Your task to perform on an android device: What's on my calendar today? Image 0: 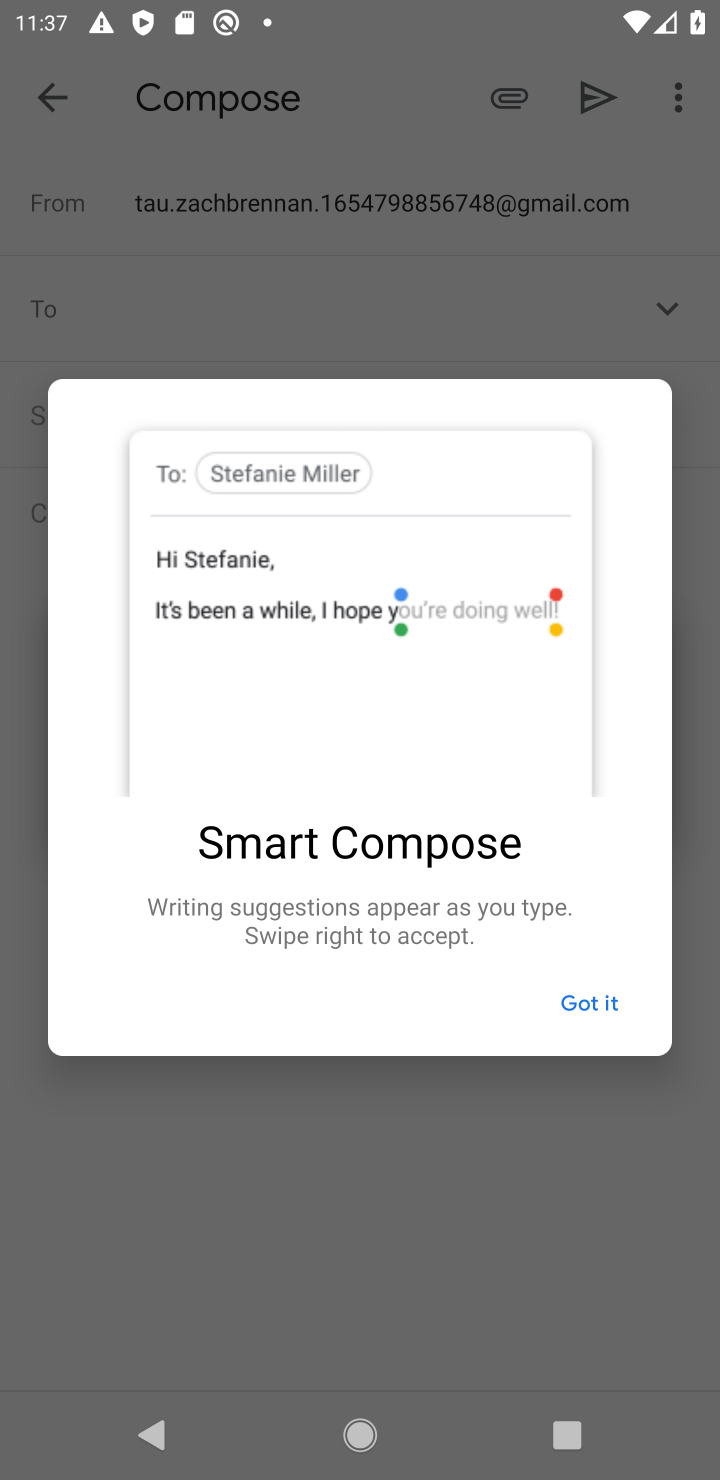
Step 0: press home button
Your task to perform on an android device: What's on my calendar today? Image 1: 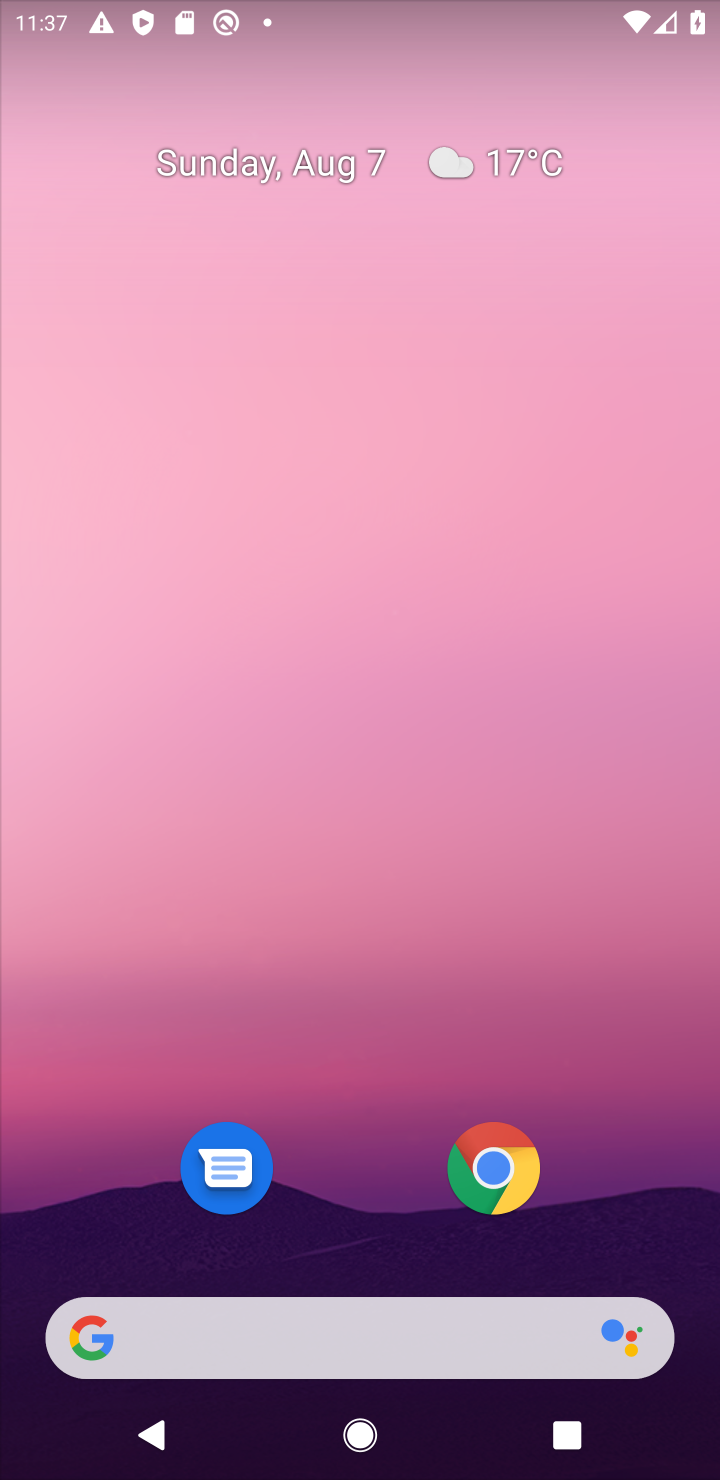
Step 1: drag from (65, 1360) to (99, 1203)
Your task to perform on an android device: What's on my calendar today? Image 2: 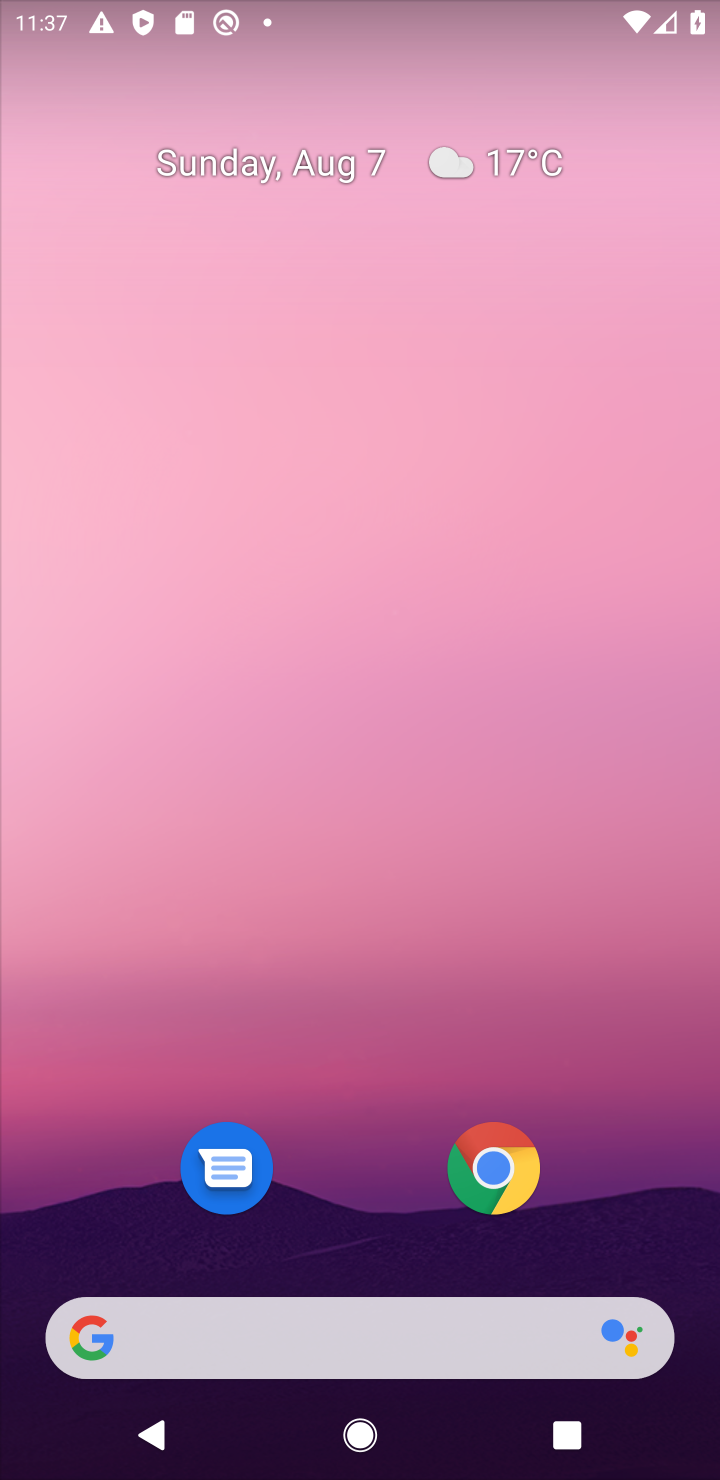
Step 2: click (84, 1395)
Your task to perform on an android device: What's on my calendar today? Image 3: 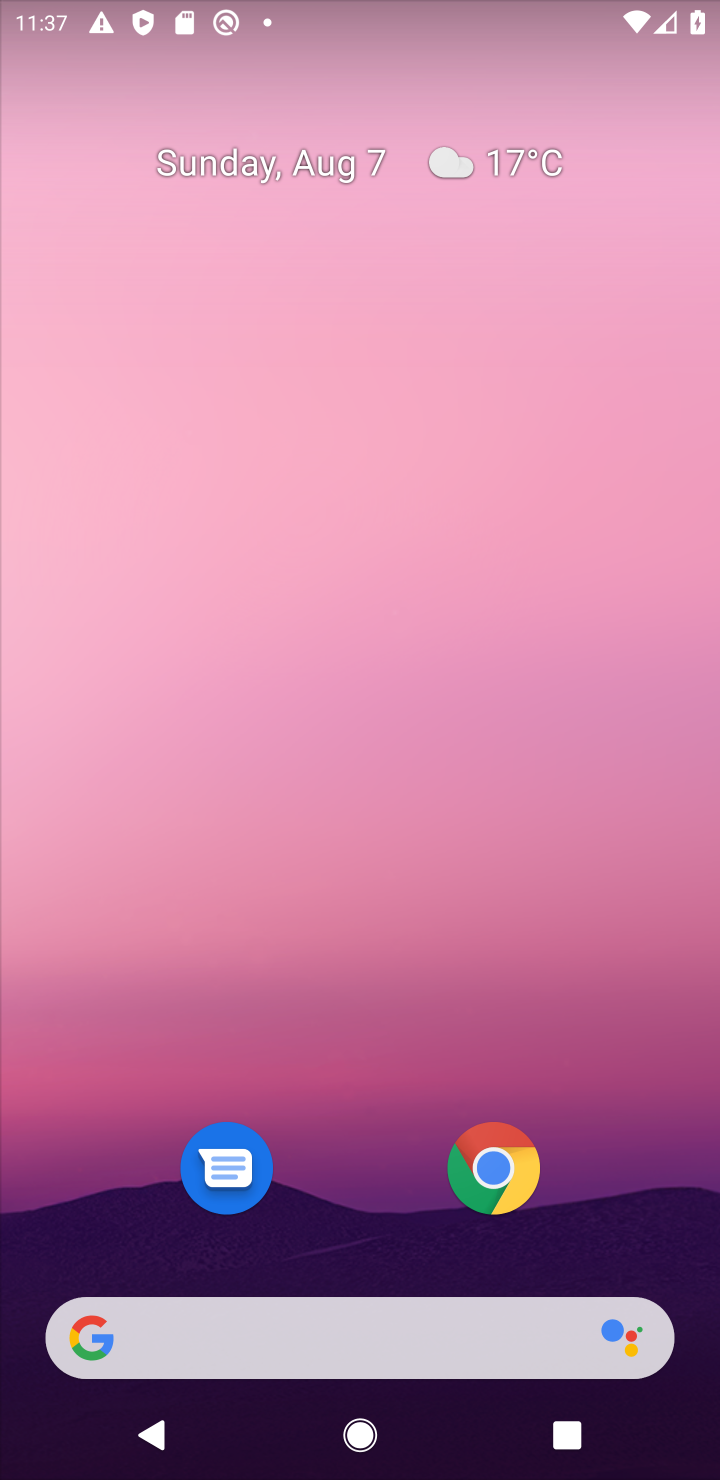
Step 3: drag from (188, 678) to (270, 478)
Your task to perform on an android device: What's on my calendar today? Image 4: 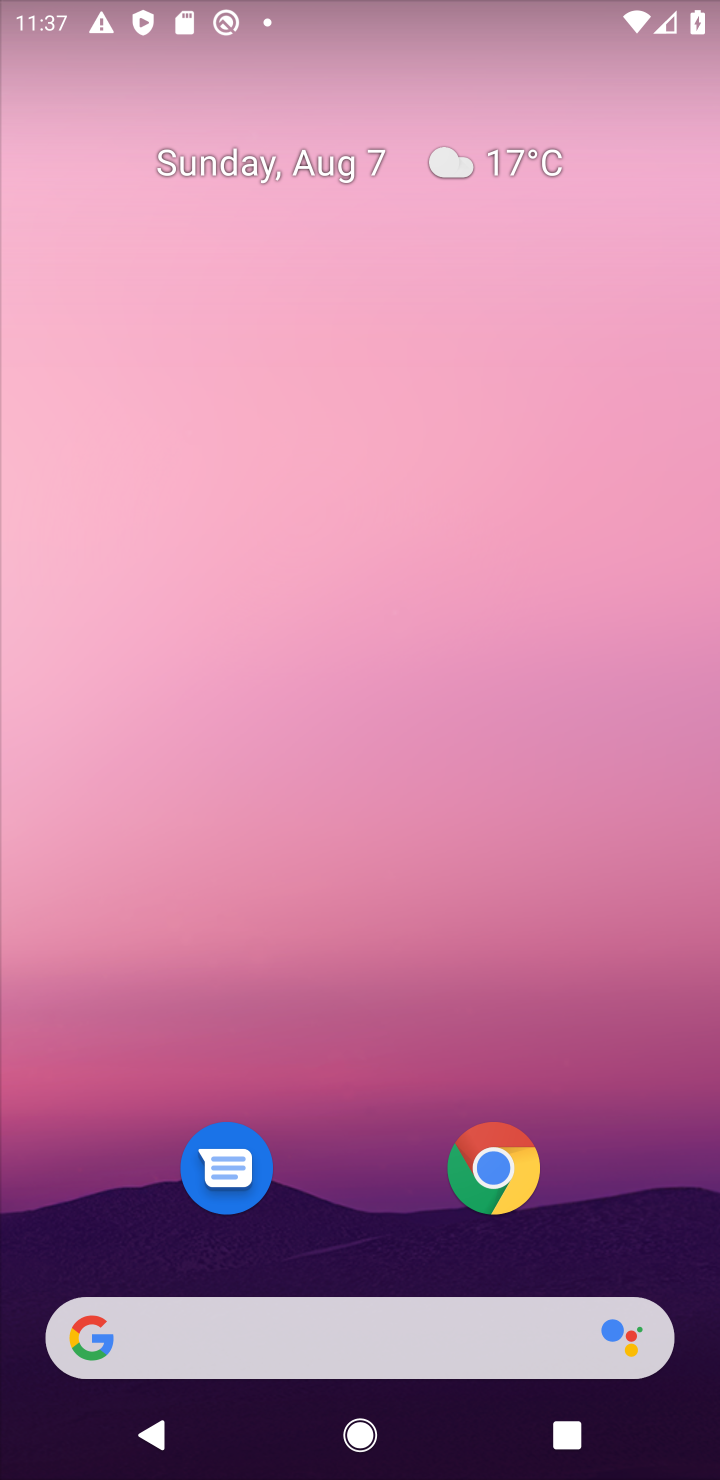
Step 4: drag from (66, 1396) to (685, 146)
Your task to perform on an android device: What's on my calendar today? Image 5: 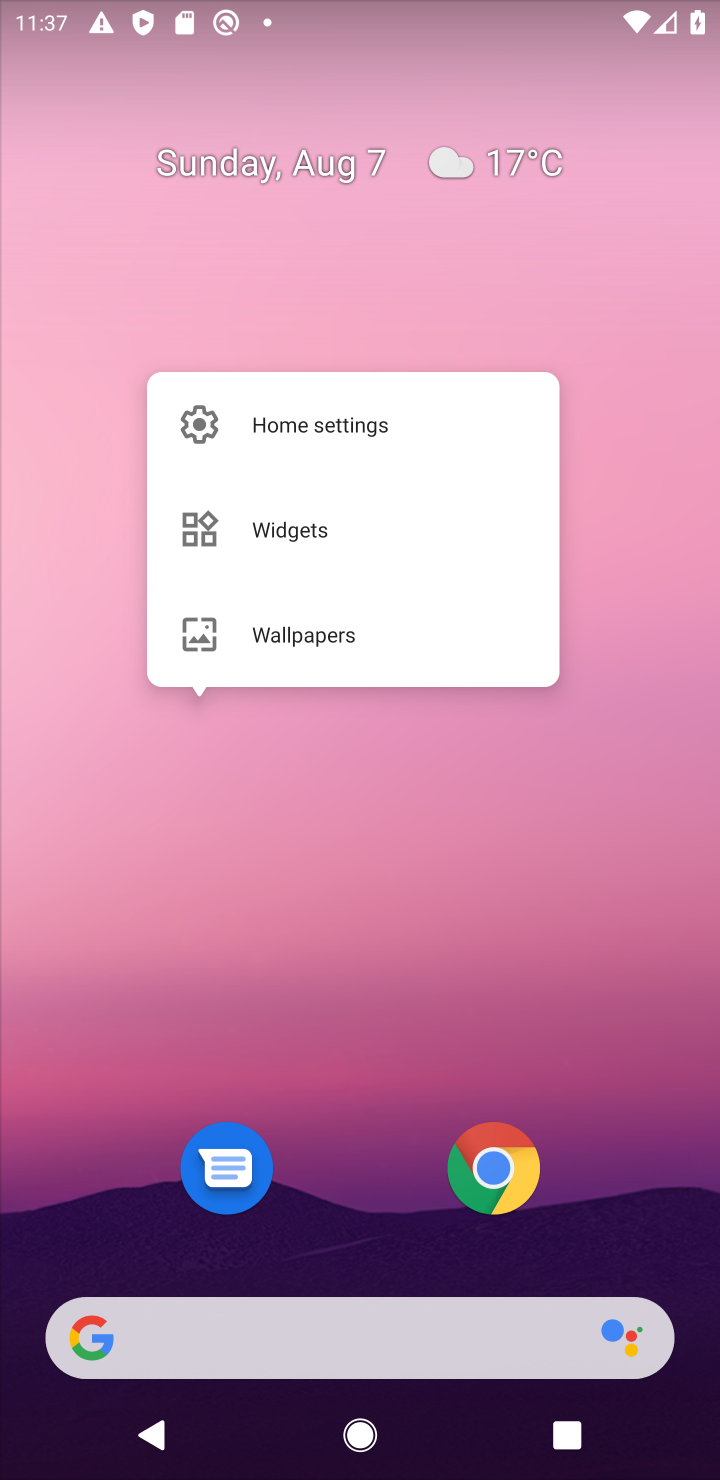
Step 5: click (84, 1417)
Your task to perform on an android device: What's on my calendar today? Image 6: 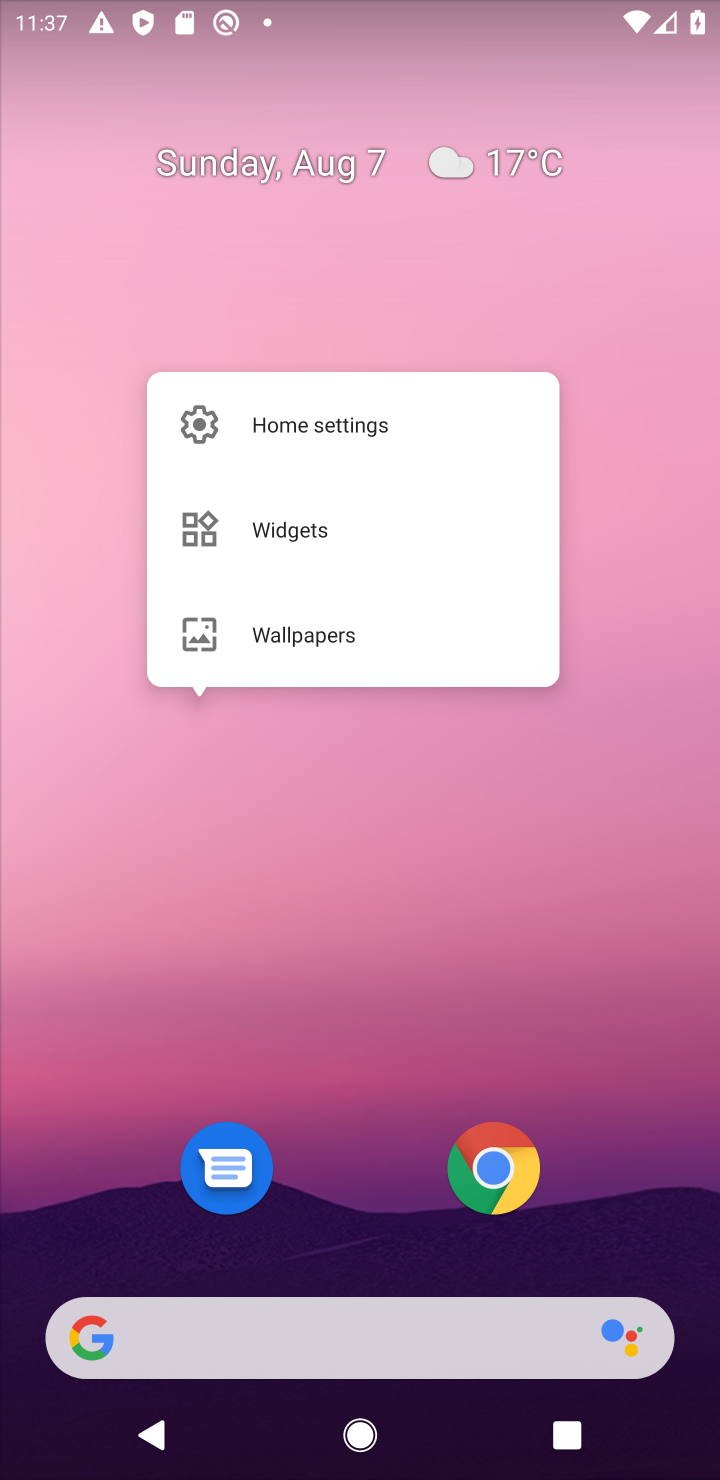
Step 6: drag from (81, 1412) to (520, 453)
Your task to perform on an android device: What's on my calendar today? Image 7: 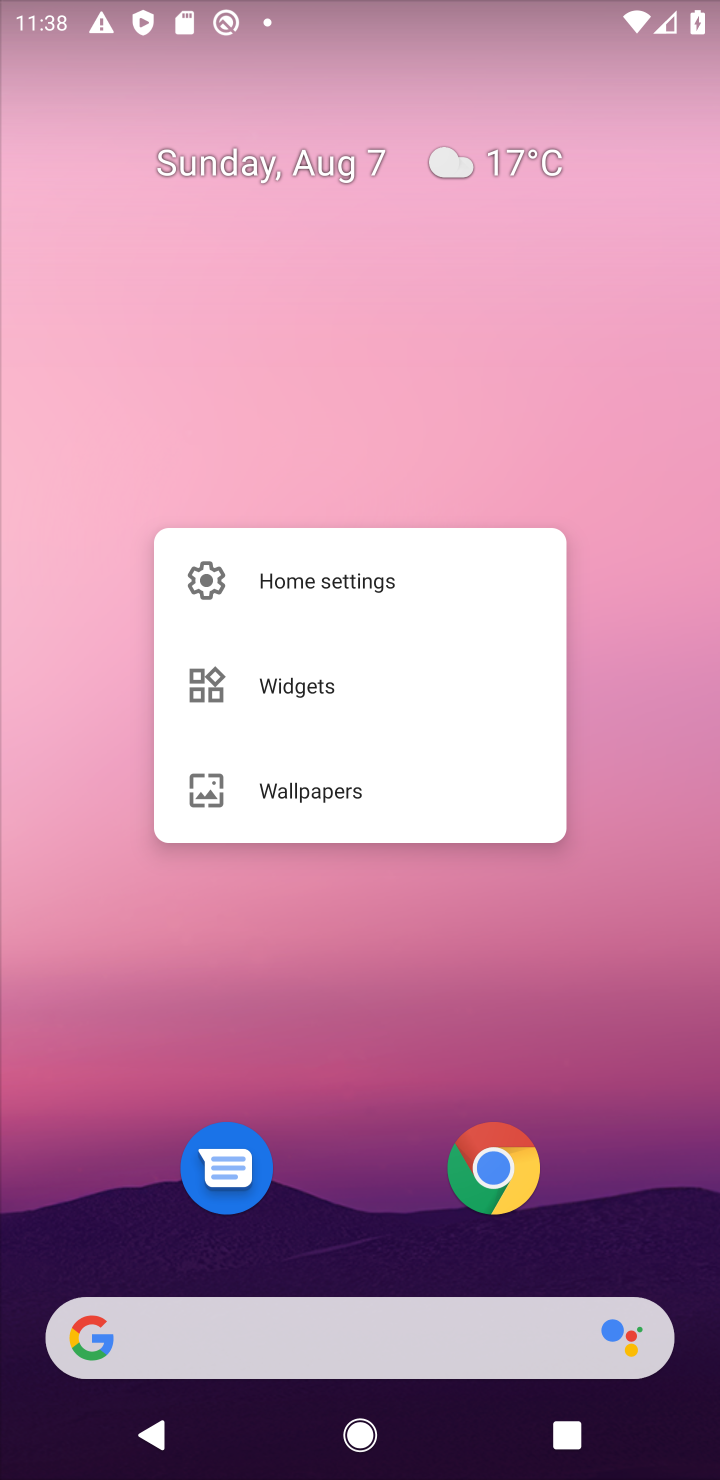
Step 7: drag from (68, 1402) to (74, 452)
Your task to perform on an android device: What's on my calendar today? Image 8: 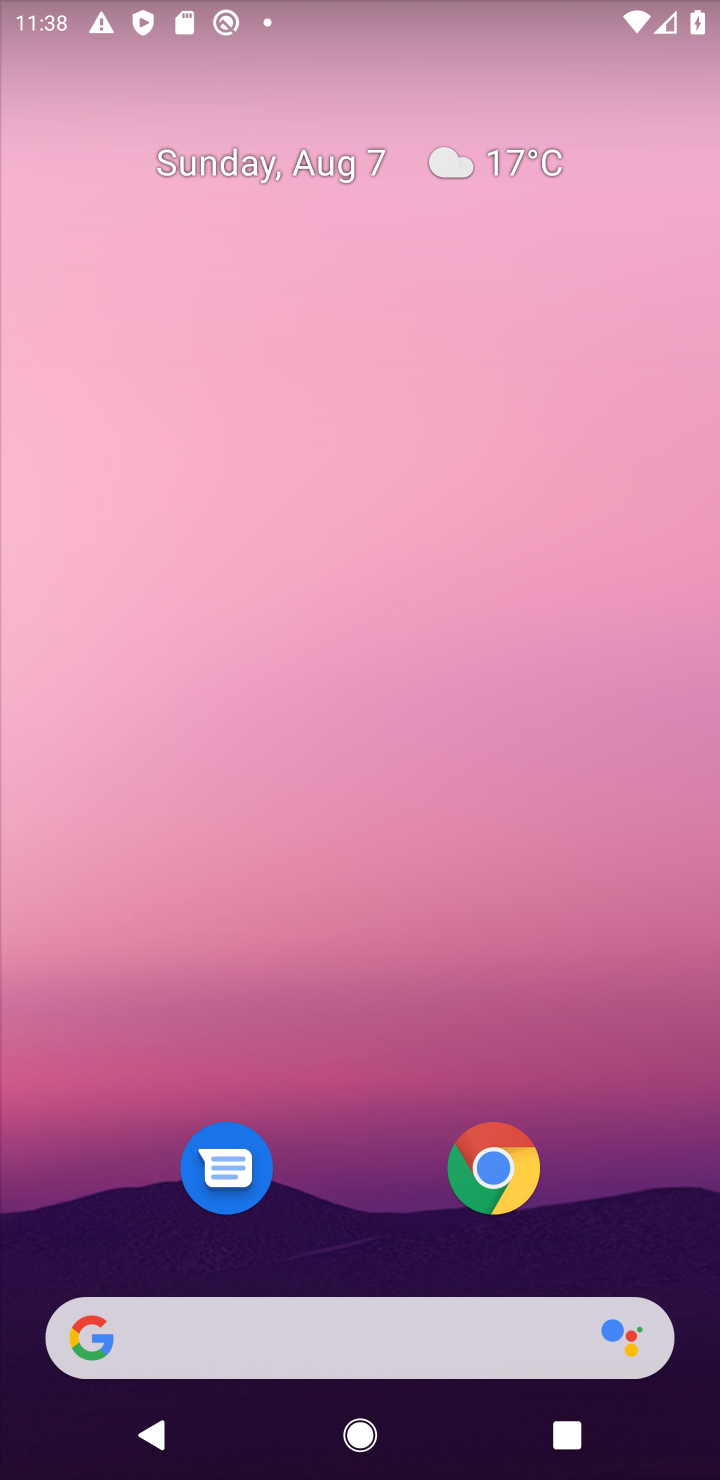
Step 8: click (92, 1443)
Your task to perform on an android device: What's on my calendar today? Image 9: 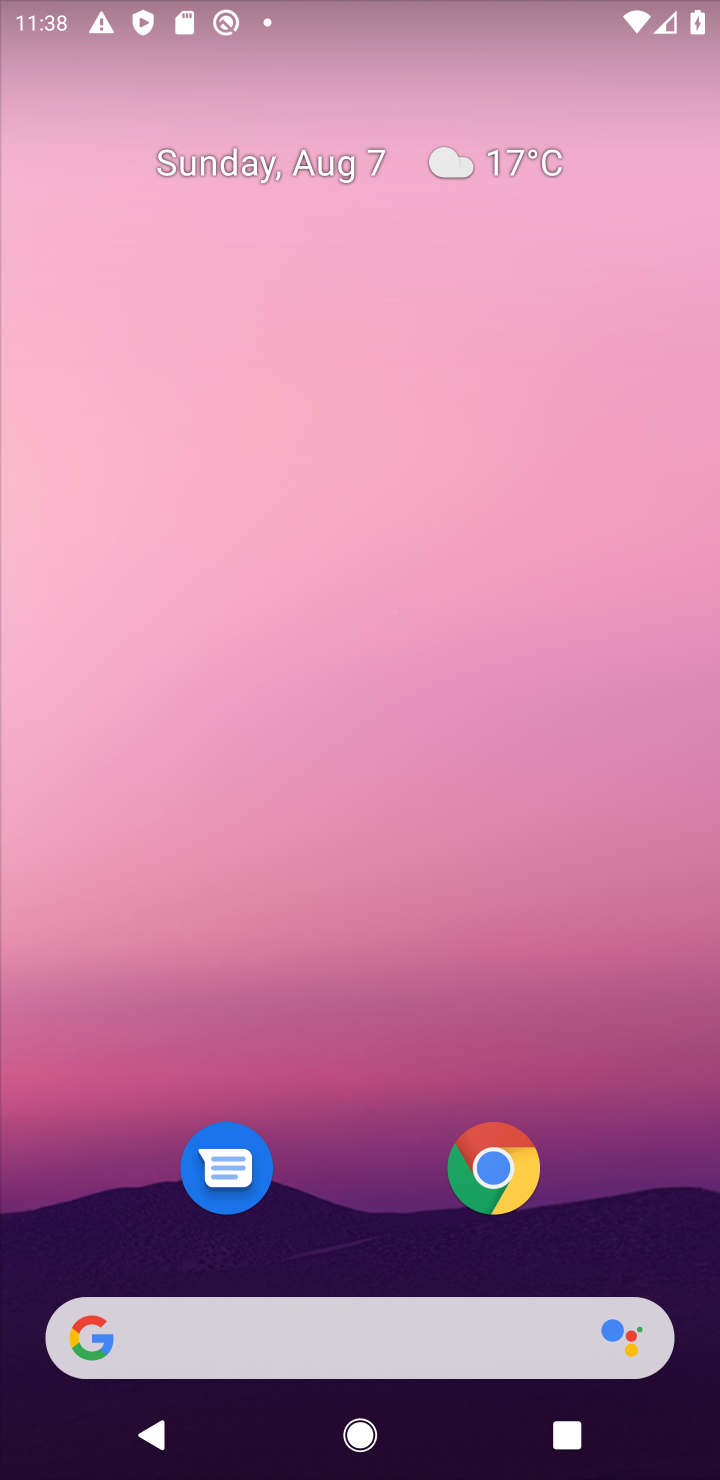
Step 9: task complete